Your task to perform on an android device: Go to Maps Image 0: 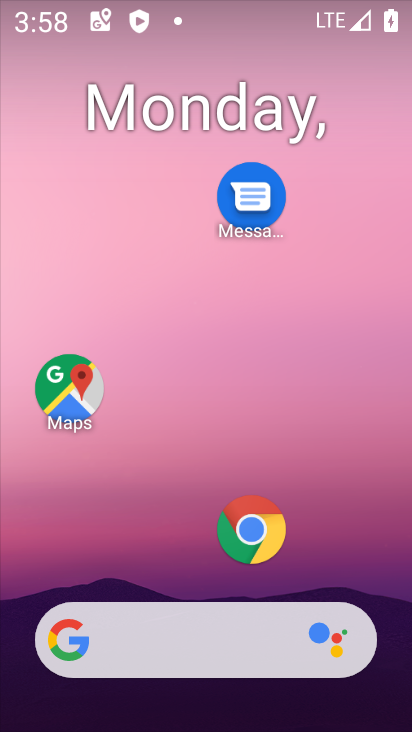
Step 0: click (71, 368)
Your task to perform on an android device: Go to Maps Image 1: 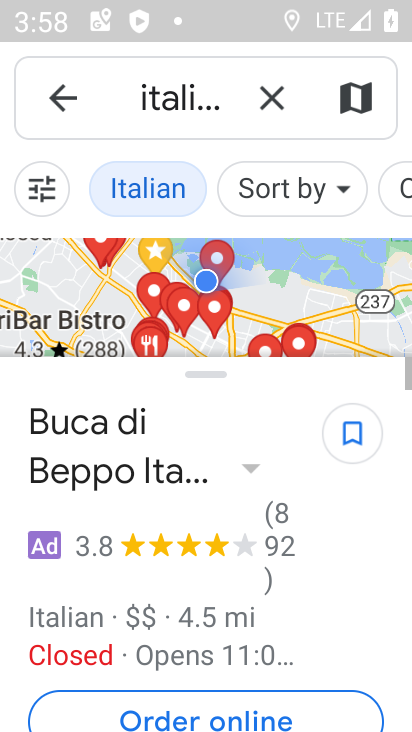
Step 1: task complete